Your task to perform on an android device: Go to Android settings Image 0: 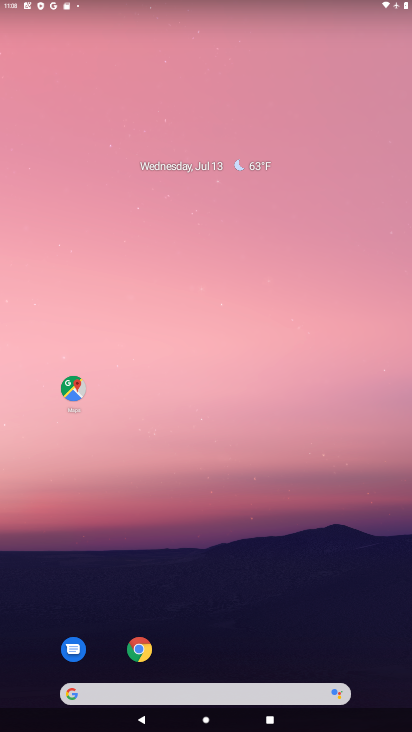
Step 0: drag from (225, 577) to (232, 286)
Your task to perform on an android device: Go to Android settings Image 1: 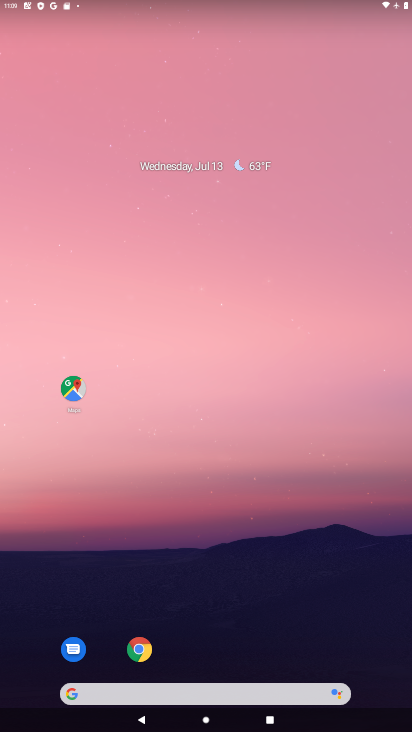
Step 1: drag from (211, 608) to (236, 204)
Your task to perform on an android device: Go to Android settings Image 2: 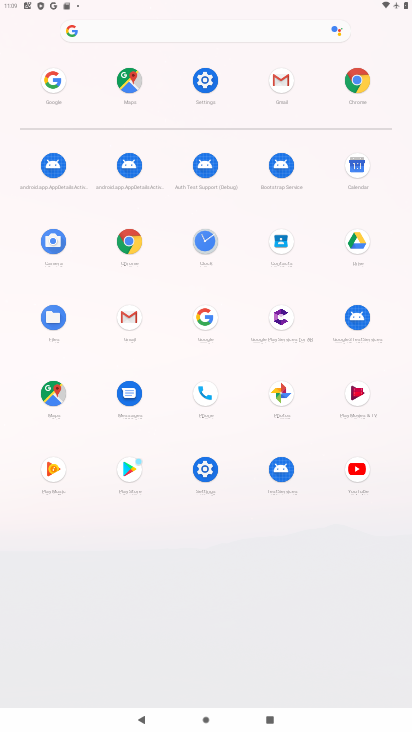
Step 2: click (202, 81)
Your task to perform on an android device: Go to Android settings Image 3: 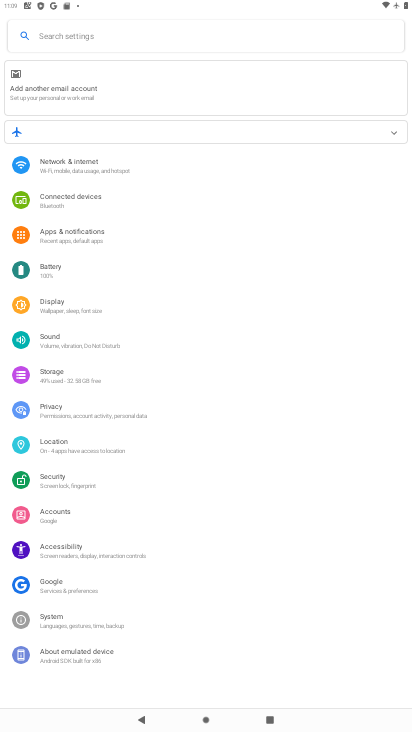
Step 3: task complete